Your task to perform on an android device: Go to notification settings Image 0: 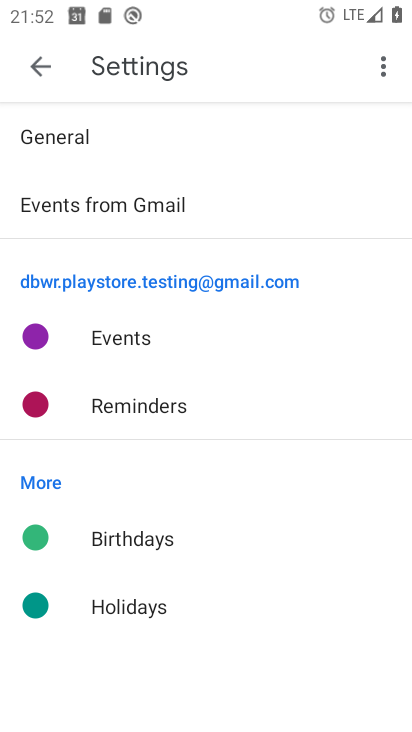
Step 0: press home button
Your task to perform on an android device: Go to notification settings Image 1: 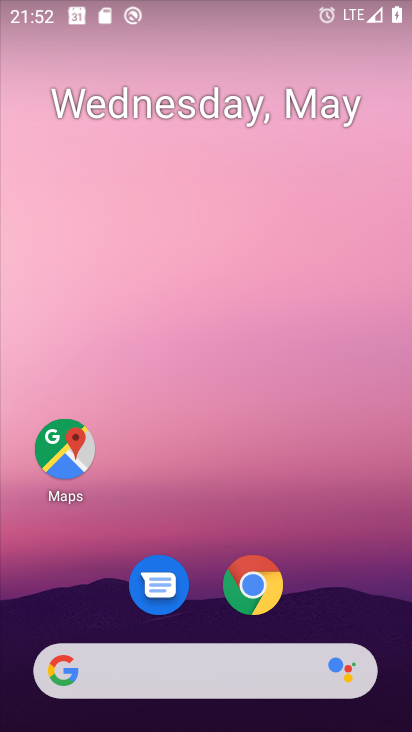
Step 1: drag from (305, 504) to (259, 55)
Your task to perform on an android device: Go to notification settings Image 2: 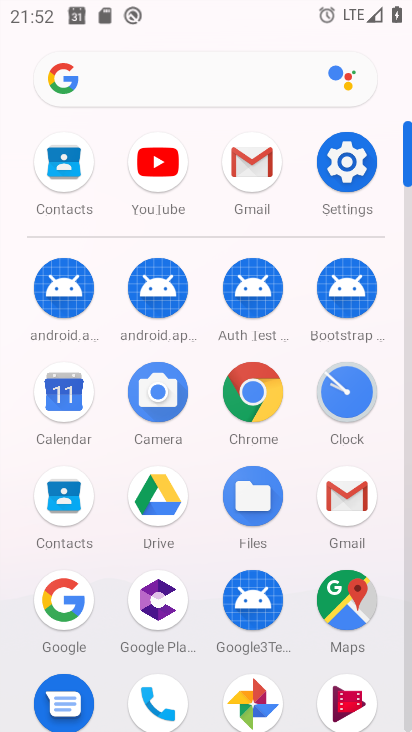
Step 2: click (327, 162)
Your task to perform on an android device: Go to notification settings Image 3: 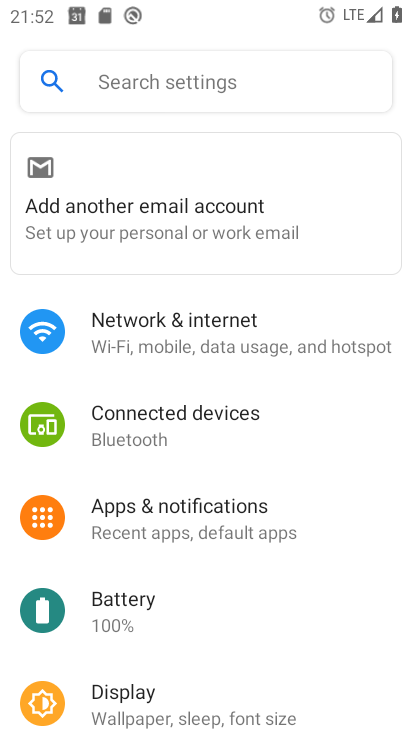
Step 3: click (213, 492)
Your task to perform on an android device: Go to notification settings Image 4: 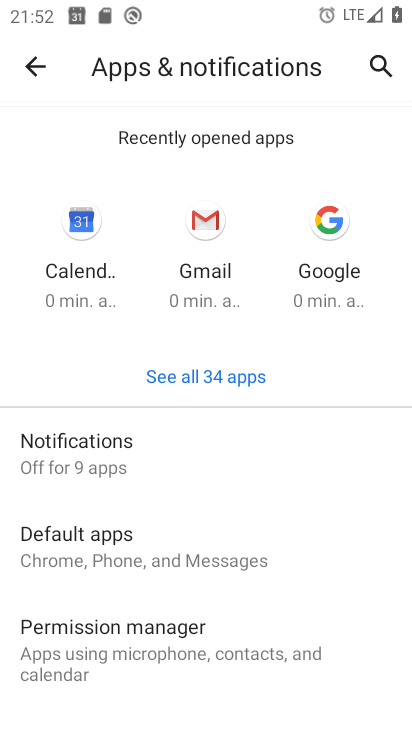
Step 4: click (132, 447)
Your task to perform on an android device: Go to notification settings Image 5: 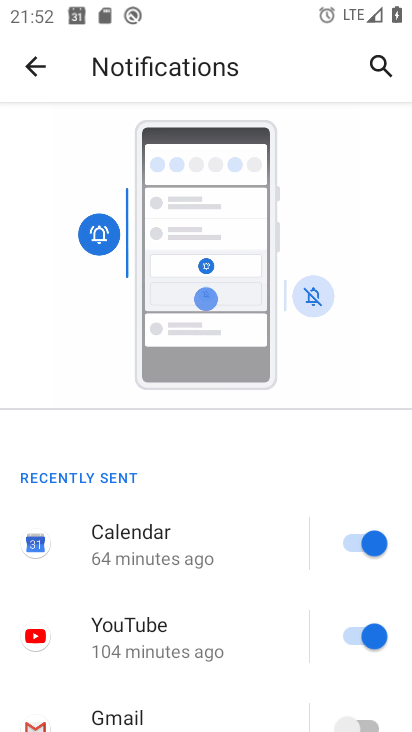
Step 5: task complete